Your task to perform on an android device: Open Chrome and go to settings Image 0: 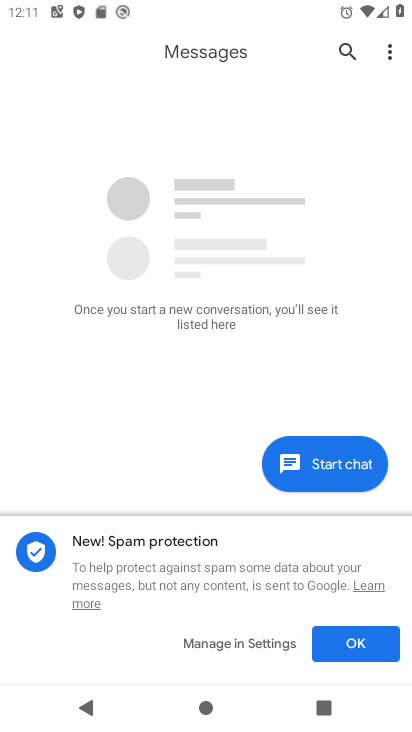
Step 0: press home button
Your task to perform on an android device: Open Chrome and go to settings Image 1: 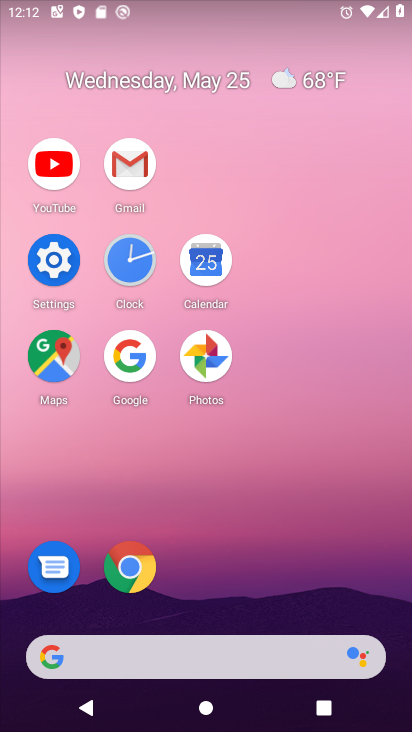
Step 1: click (134, 551)
Your task to perform on an android device: Open Chrome and go to settings Image 2: 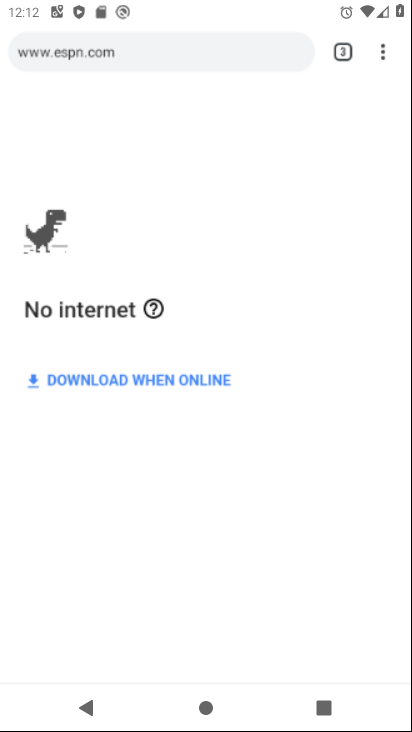
Step 2: click (389, 55)
Your task to perform on an android device: Open Chrome and go to settings Image 3: 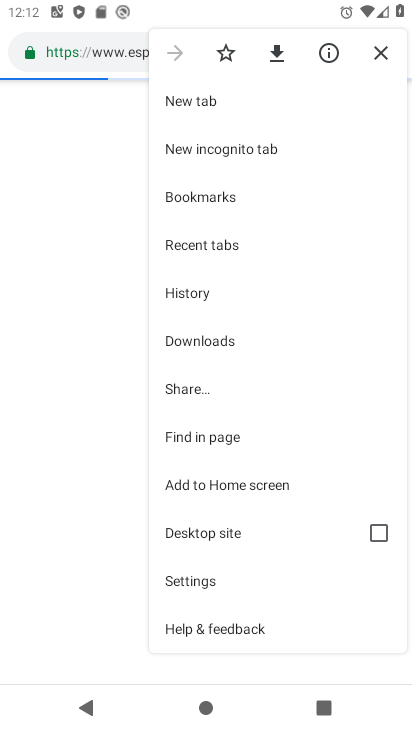
Step 3: click (227, 576)
Your task to perform on an android device: Open Chrome and go to settings Image 4: 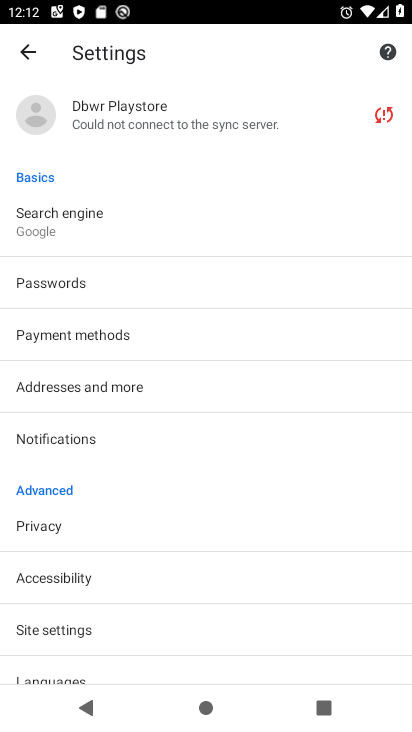
Step 4: task complete